Your task to perform on an android device: Open Google Maps and go to "Timeline" Image 0: 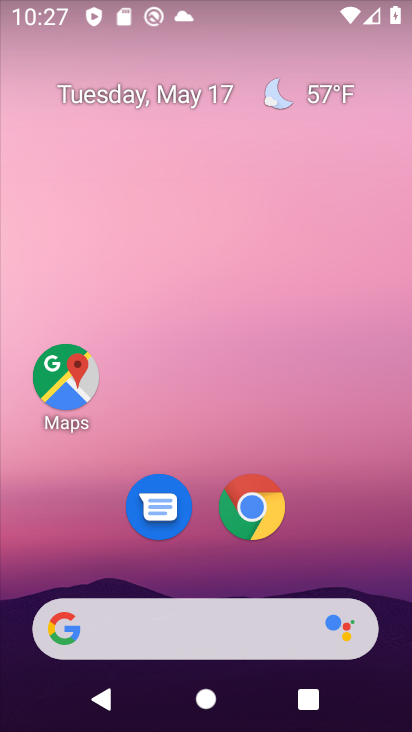
Step 0: drag from (345, 538) to (337, 117)
Your task to perform on an android device: Open Google Maps and go to "Timeline" Image 1: 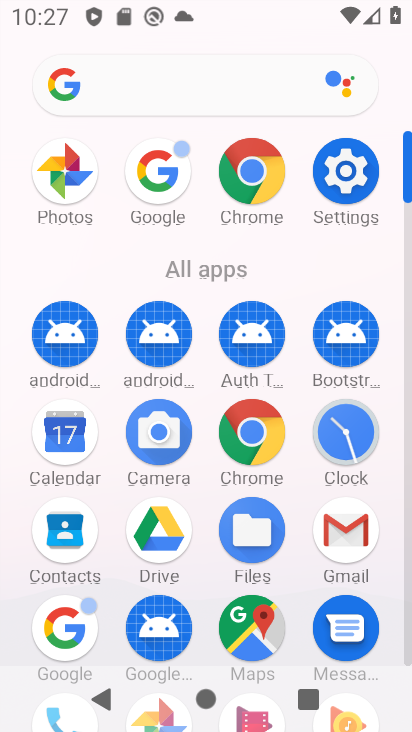
Step 1: drag from (395, 562) to (389, 326)
Your task to perform on an android device: Open Google Maps and go to "Timeline" Image 2: 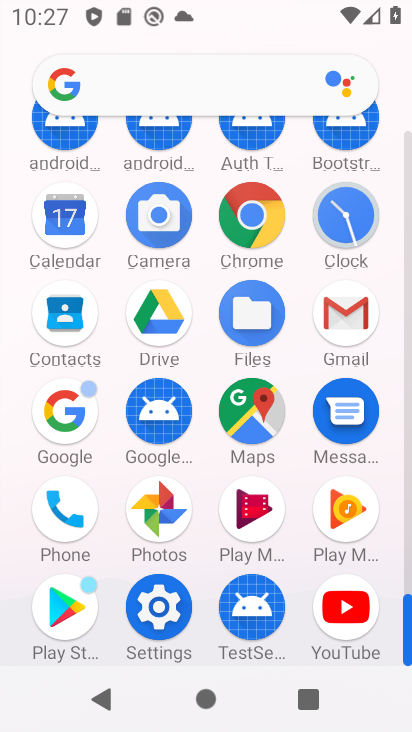
Step 2: click (262, 423)
Your task to perform on an android device: Open Google Maps and go to "Timeline" Image 3: 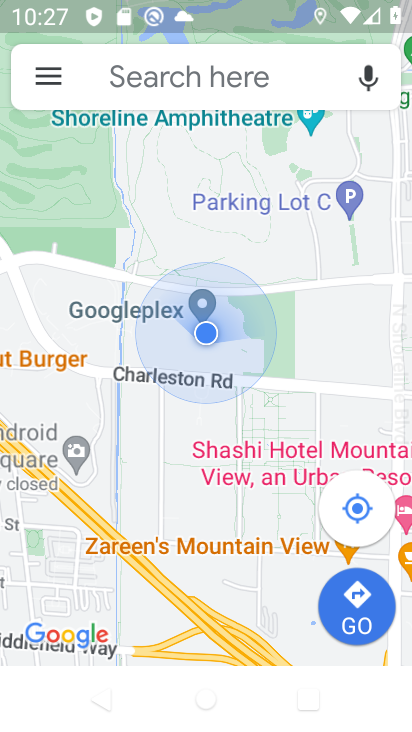
Step 3: click (48, 83)
Your task to perform on an android device: Open Google Maps and go to "Timeline" Image 4: 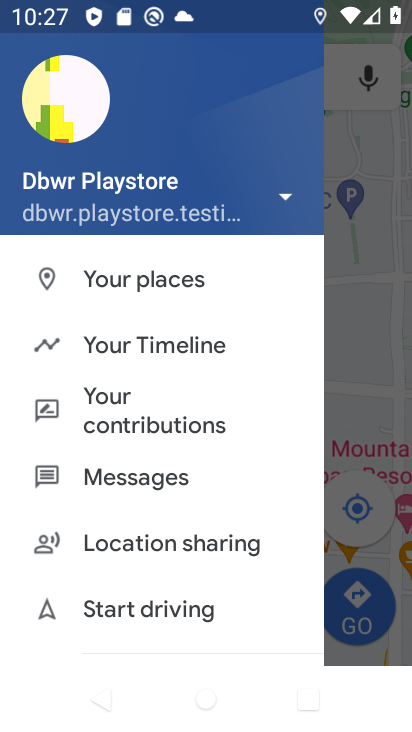
Step 4: click (166, 352)
Your task to perform on an android device: Open Google Maps and go to "Timeline" Image 5: 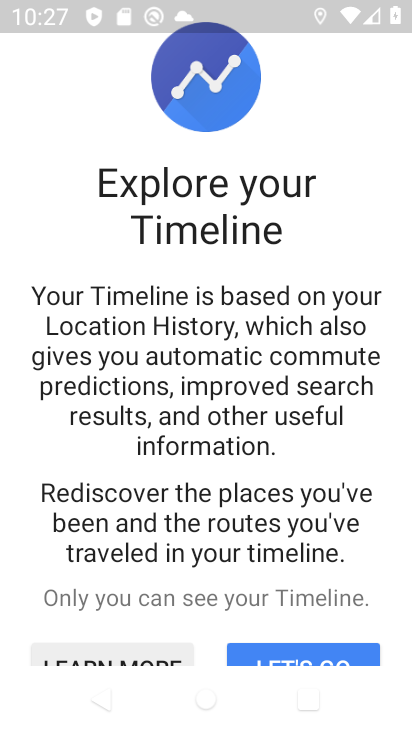
Step 5: task complete